Your task to perform on an android device: Who is the prime minister of Canada? Image 0: 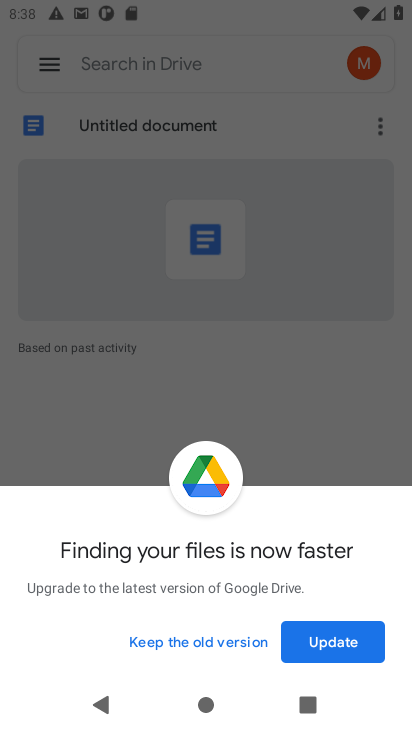
Step 0: press home button
Your task to perform on an android device: Who is the prime minister of Canada? Image 1: 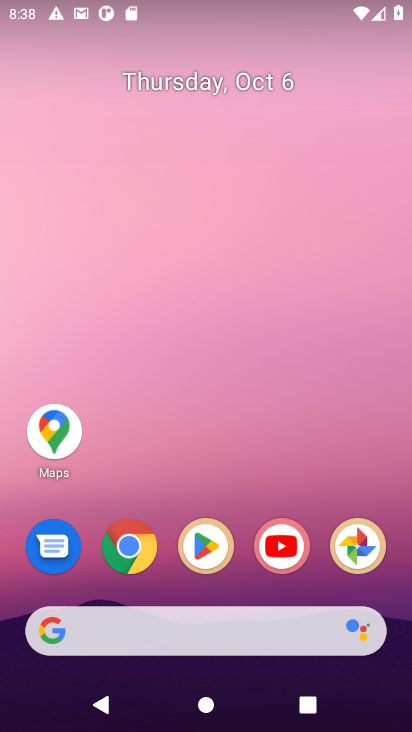
Step 1: click (128, 545)
Your task to perform on an android device: Who is the prime minister of Canada? Image 2: 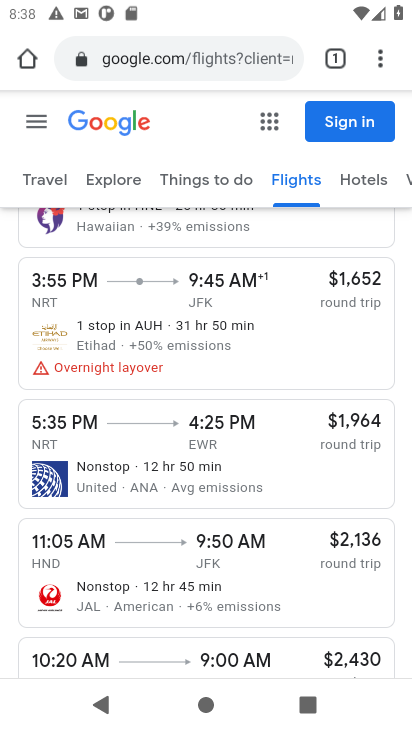
Step 2: click (184, 42)
Your task to perform on an android device: Who is the prime minister of Canada? Image 3: 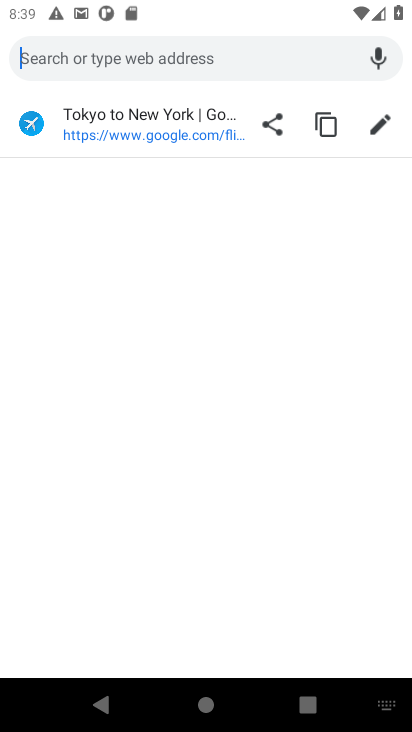
Step 3: type "Who is the prime minister of Canada?"
Your task to perform on an android device: Who is the prime minister of Canada? Image 4: 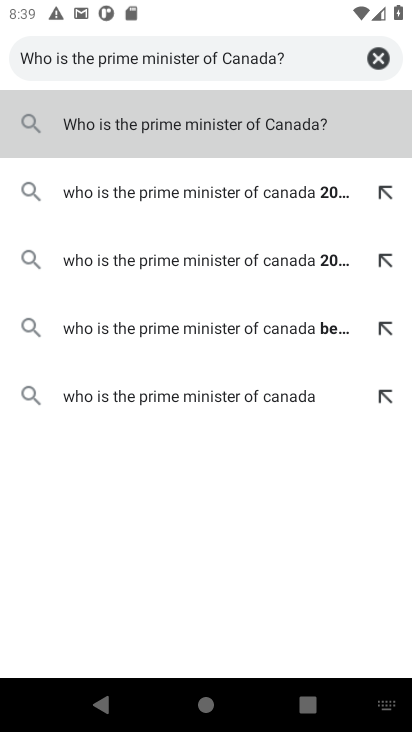
Step 4: click (184, 129)
Your task to perform on an android device: Who is the prime minister of Canada? Image 5: 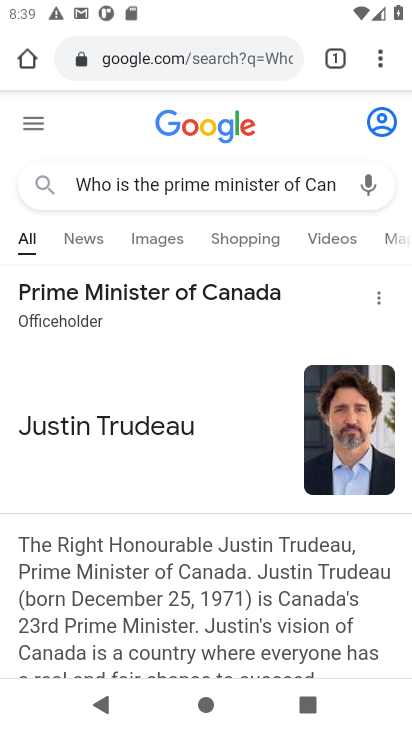
Step 5: task complete